Your task to perform on an android device: Open Yahoo.com Image 0: 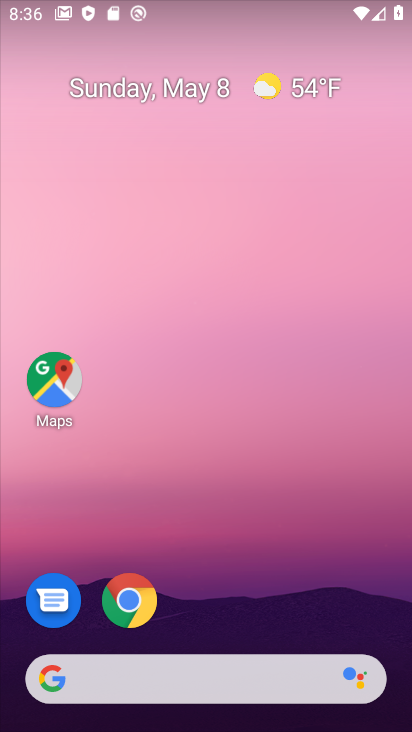
Step 0: click (128, 600)
Your task to perform on an android device: Open Yahoo.com Image 1: 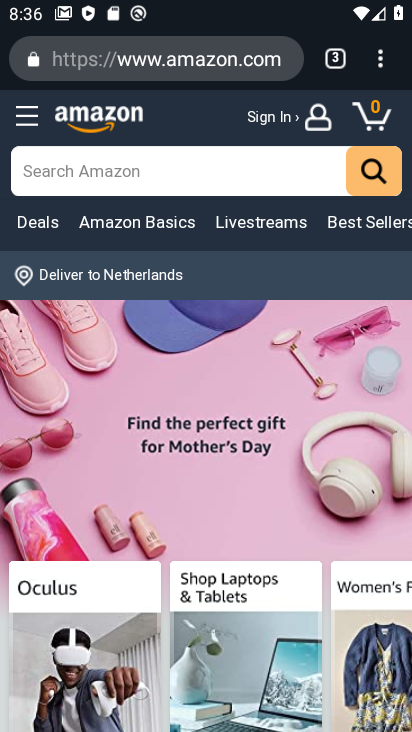
Step 1: click (344, 70)
Your task to perform on an android device: Open Yahoo.com Image 2: 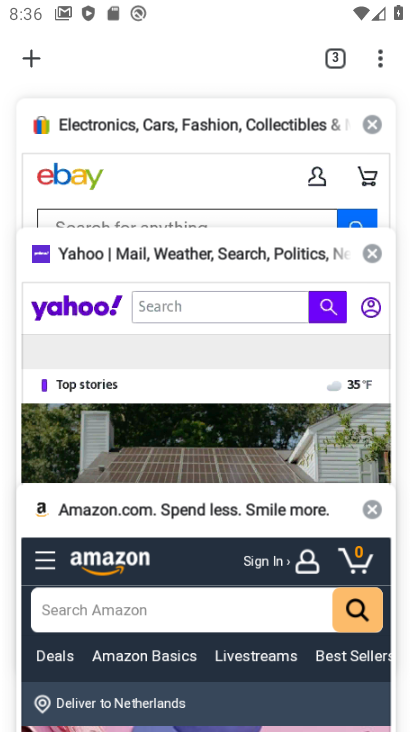
Step 2: click (119, 287)
Your task to perform on an android device: Open Yahoo.com Image 3: 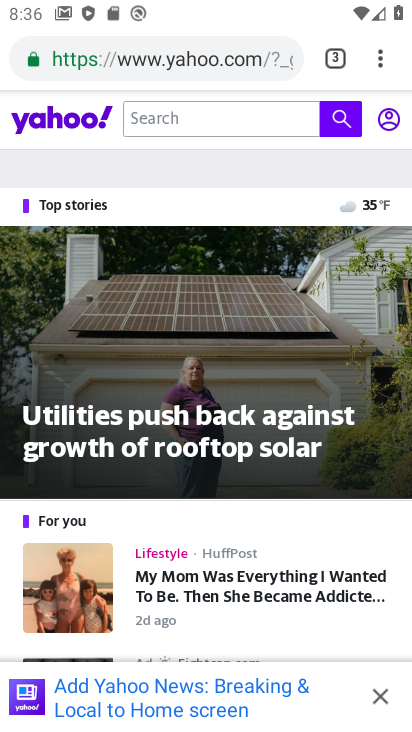
Step 3: task complete